Your task to perform on an android device: Open the web browser Image 0: 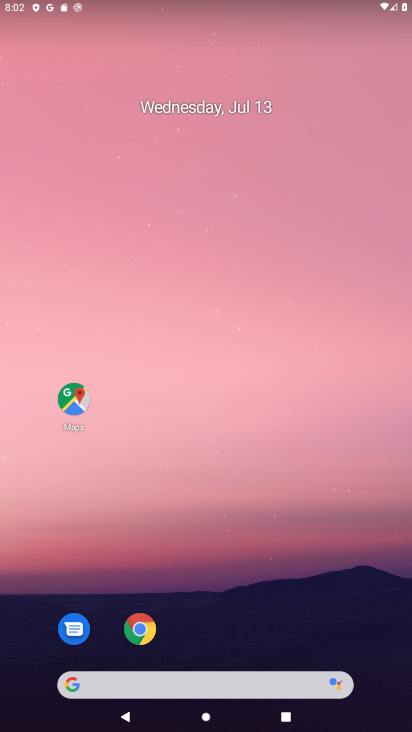
Step 0: drag from (191, 649) to (183, 165)
Your task to perform on an android device: Open the web browser Image 1: 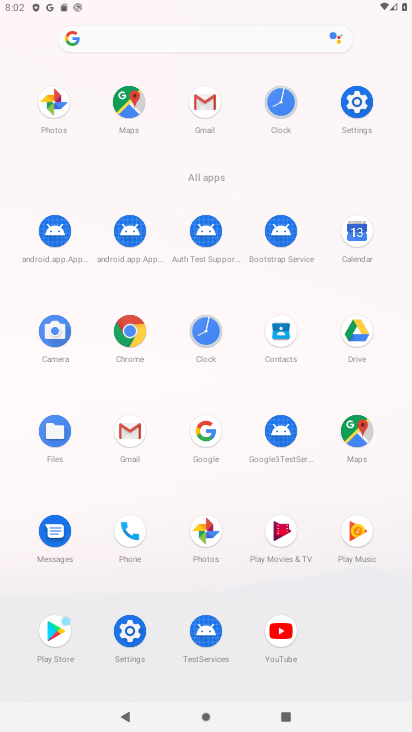
Step 1: click (208, 433)
Your task to perform on an android device: Open the web browser Image 2: 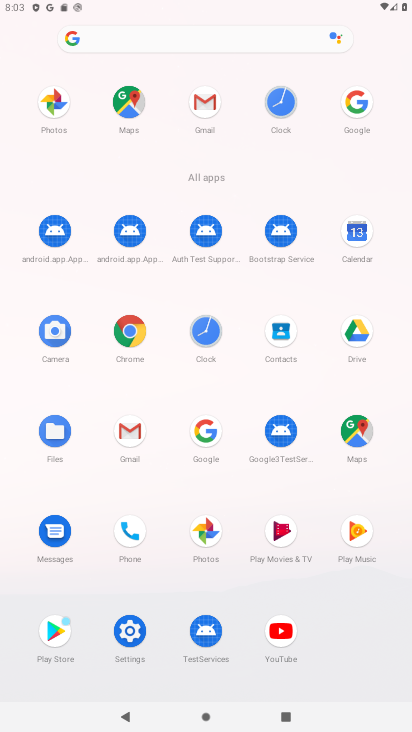
Step 2: click (207, 426)
Your task to perform on an android device: Open the web browser Image 3: 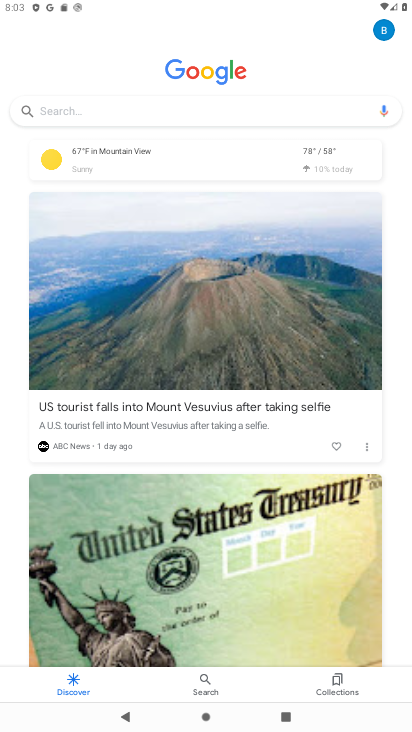
Step 3: task complete